Your task to perform on an android device: Go to battery settings Image 0: 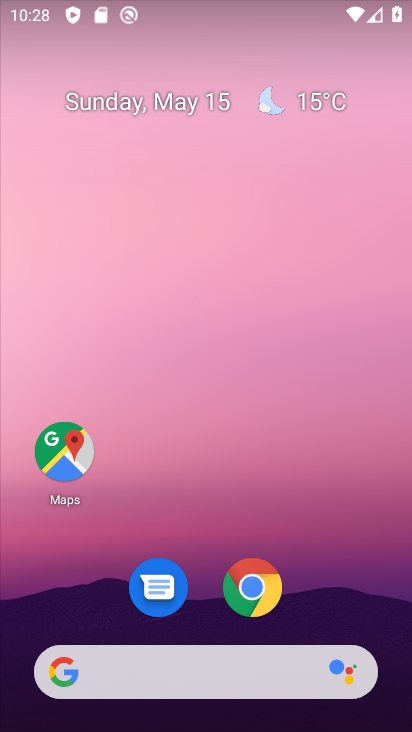
Step 0: drag from (87, 617) to (175, 155)
Your task to perform on an android device: Go to battery settings Image 1: 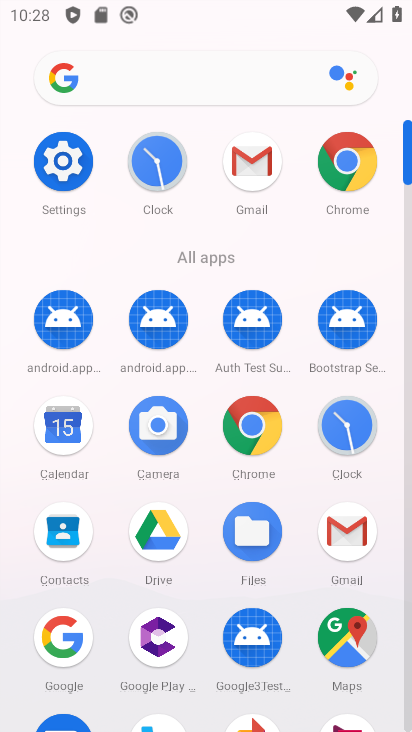
Step 1: drag from (187, 629) to (232, 409)
Your task to perform on an android device: Go to battery settings Image 2: 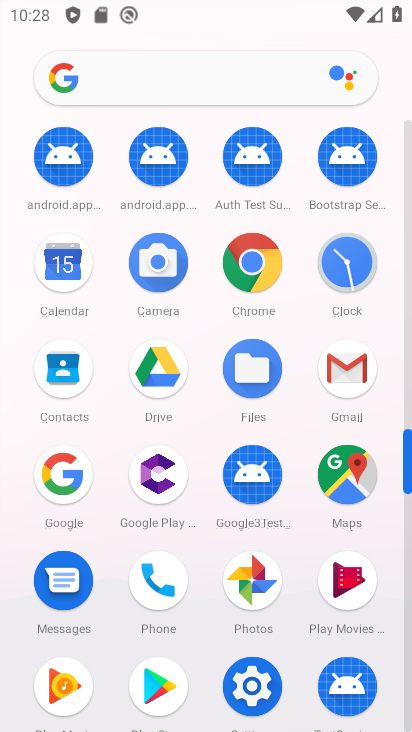
Step 2: drag from (170, 586) to (201, 441)
Your task to perform on an android device: Go to battery settings Image 3: 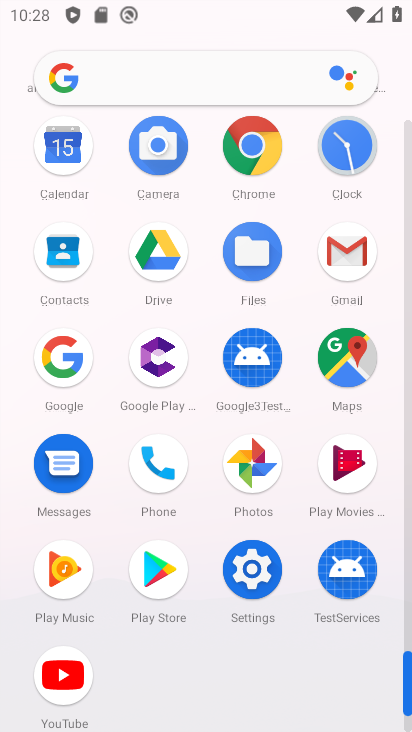
Step 3: click (254, 581)
Your task to perform on an android device: Go to battery settings Image 4: 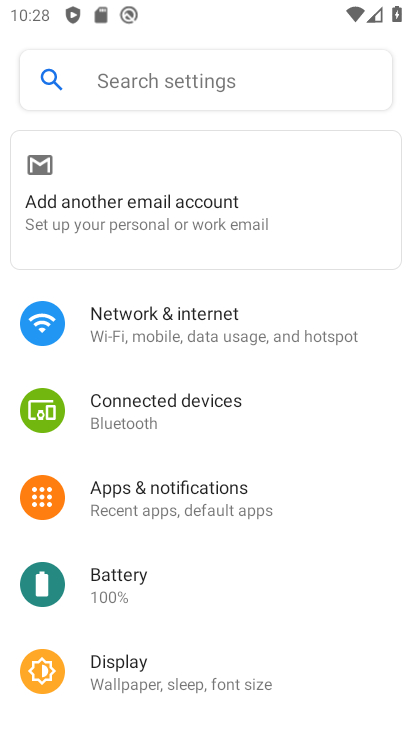
Step 4: click (148, 613)
Your task to perform on an android device: Go to battery settings Image 5: 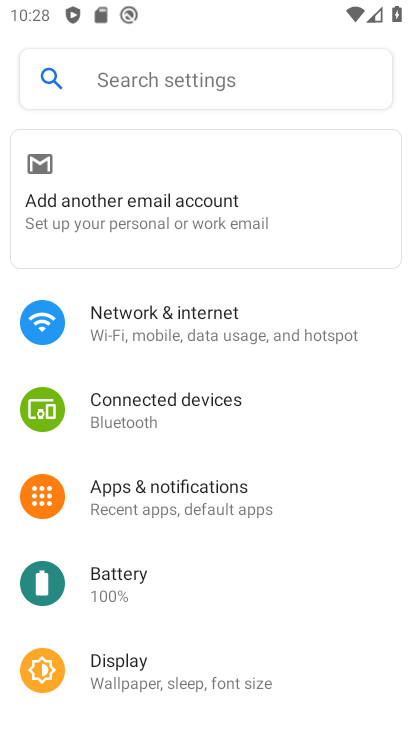
Step 5: click (110, 575)
Your task to perform on an android device: Go to battery settings Image 6: 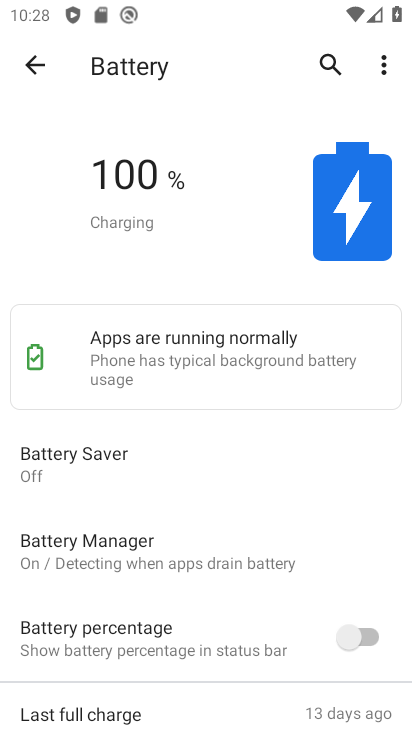
Step 6: task complete